Your task to perform on an android device: Search for vegetarian restaurants on Maps Image 0: 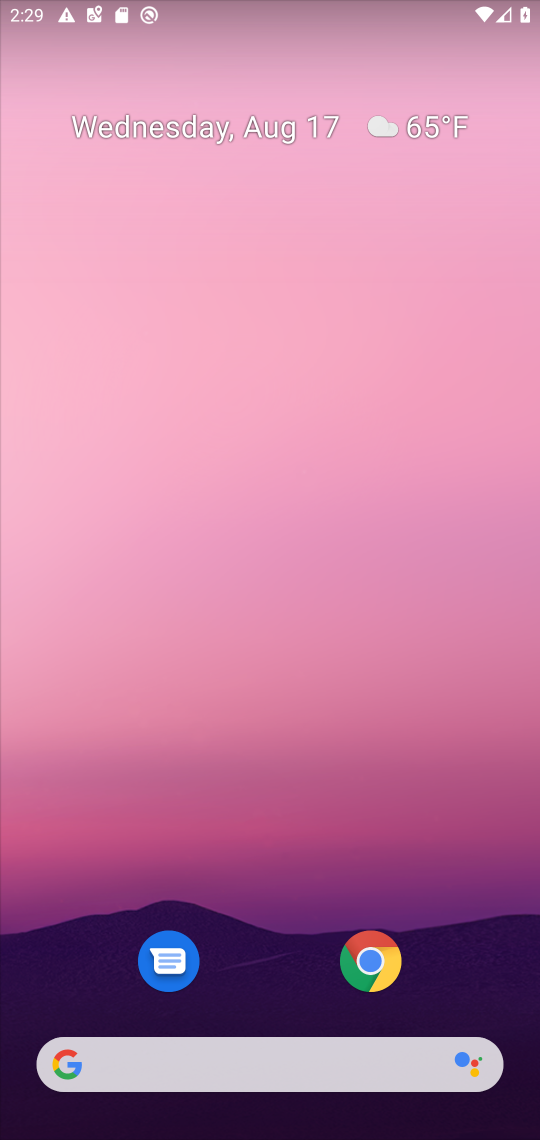
Step 0: drag from (324, 1008) to (405, 178)
Your task to perform on an android device: Search for vegetarian restaurants on Maps Image 1: 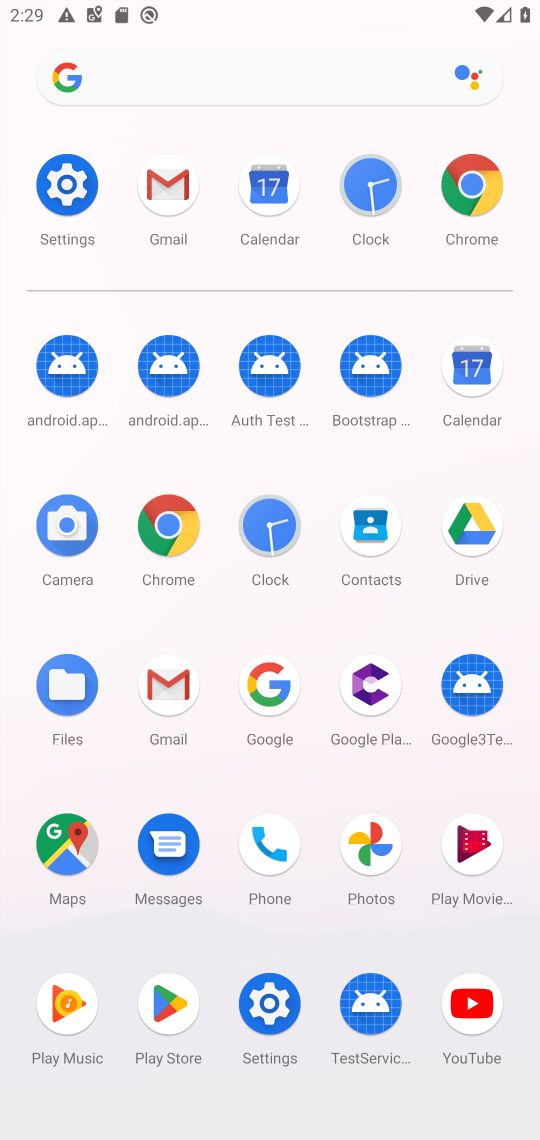
Step 1: click (73, 848)
Your task to perform on an android device: Search for vegetarian restaurants on Maps Image 2: 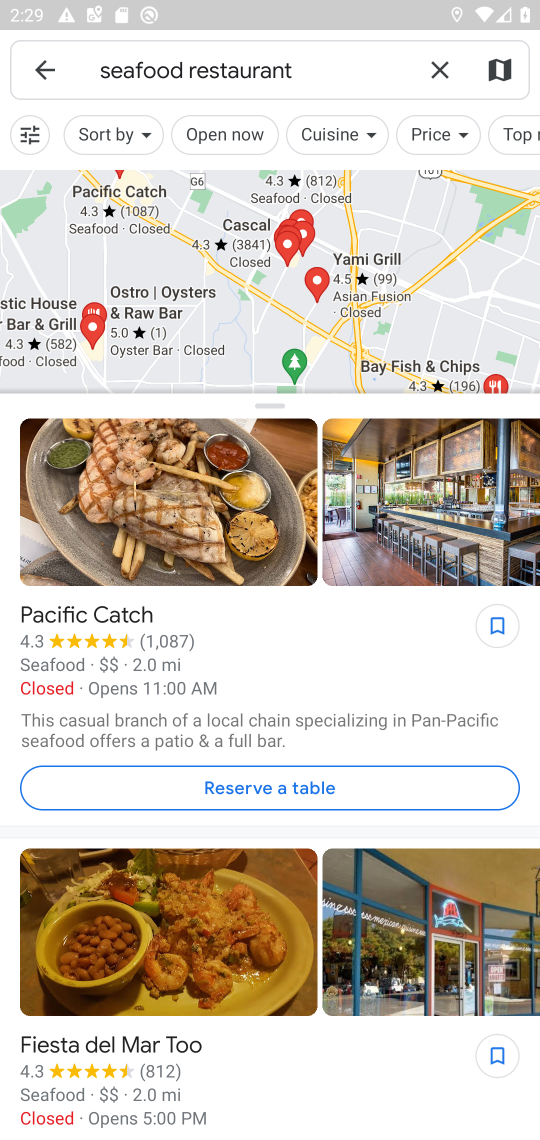
Step 2: click (438, 71)
Your task to perform on an android device: Search for vegetarian restaurants on Maps Image 3: 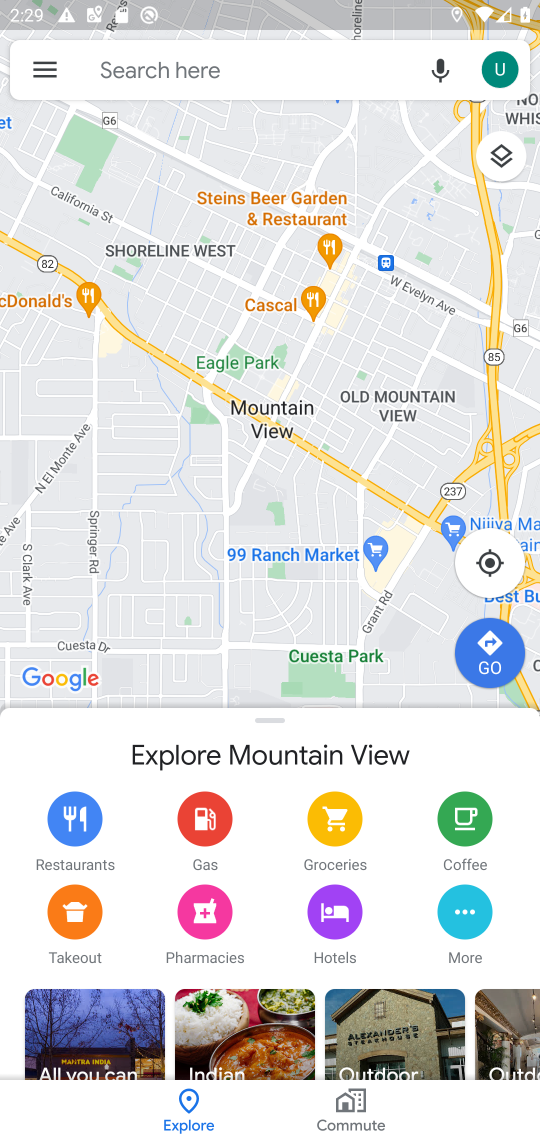
Step 3: click (344, 62)
Your task to perform on an android device: Search for vegetarian restaurants on Maps Image 4: 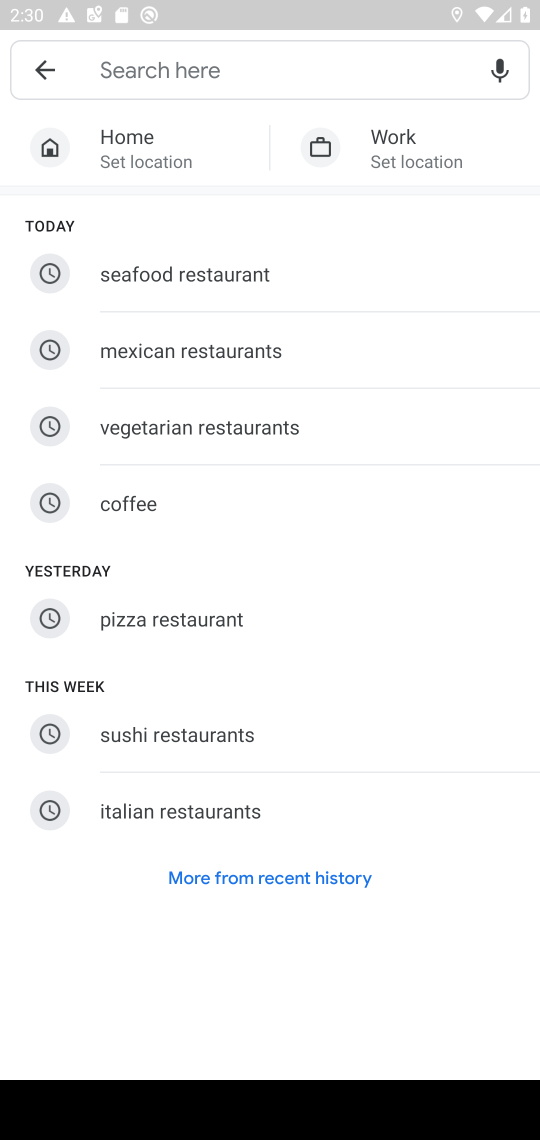
Step 4: click (247, 424)
Your task to perform on an android device: Search for vegetarian restaurants on Maps Image 5: 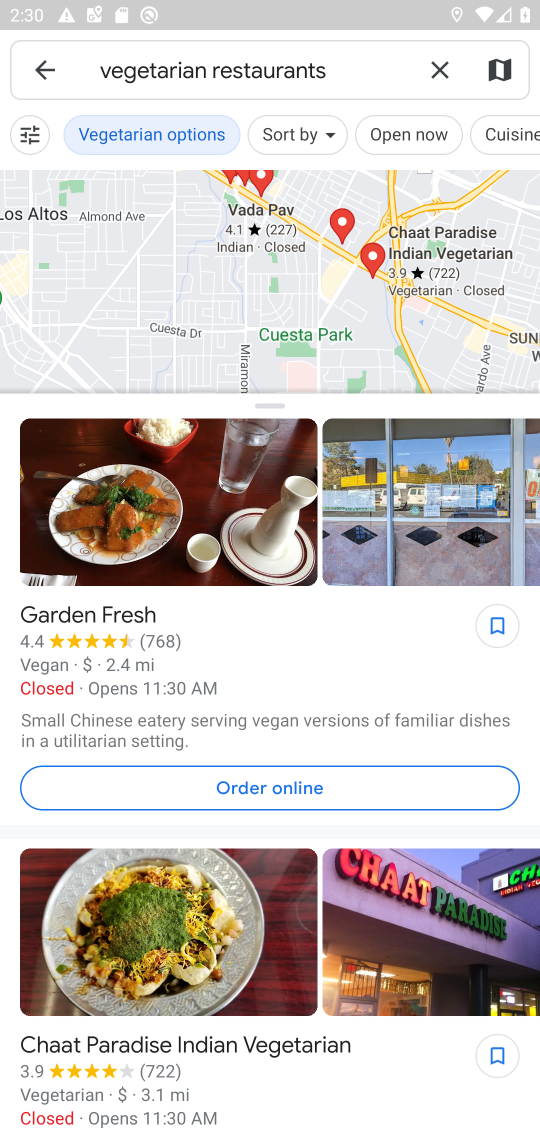
Step 5: task complete